Your task to perform on an android device: turn off notifications settings in the gmail app Image 0: 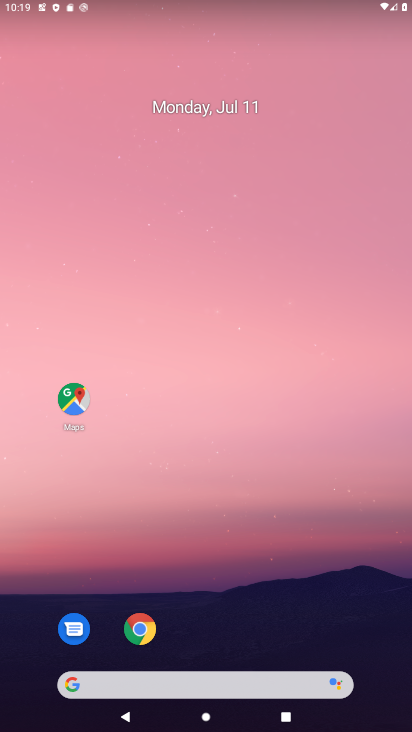
Step 0: drag from (200, 648) to (204, 289)
Your task to perform on an android device: turn off notifications settings in the gmail app Image 1: 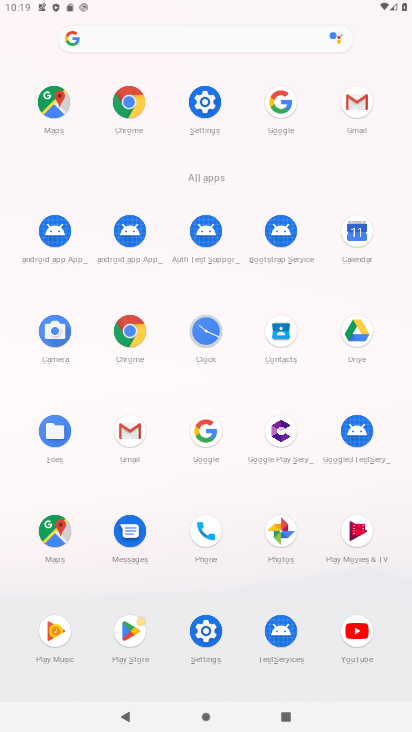
Step 1: click (355, 105)
Your task to perform on an android device: turn off notifications settings in the gmail app Image 2: 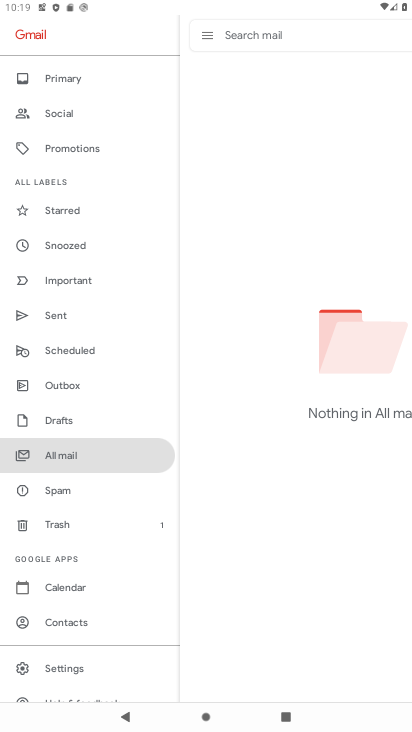
Step 2: click (89, 663)
Your task to perform on an android device: turn off notifications settings in the gmail app Image 3: 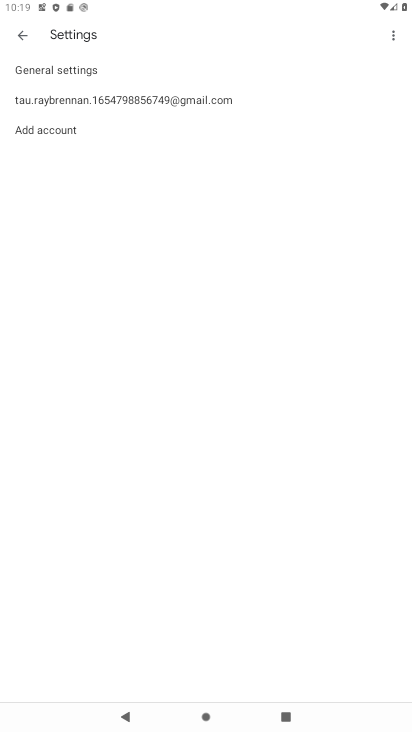
Step 3: click (123, 106)
Your task to perform on an android device: turn off notifications settings in the gmail app Image 4: 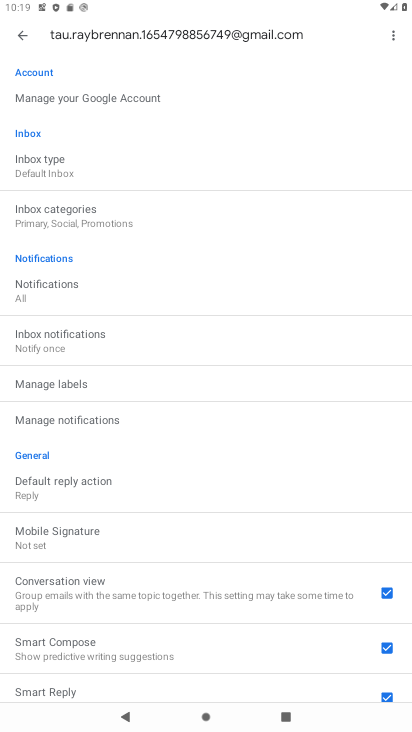
Step 4: drag from (156, 582) to (156, 346)
Your task to perform on an android device: turn off notifications settings in the gmail app Image 5: 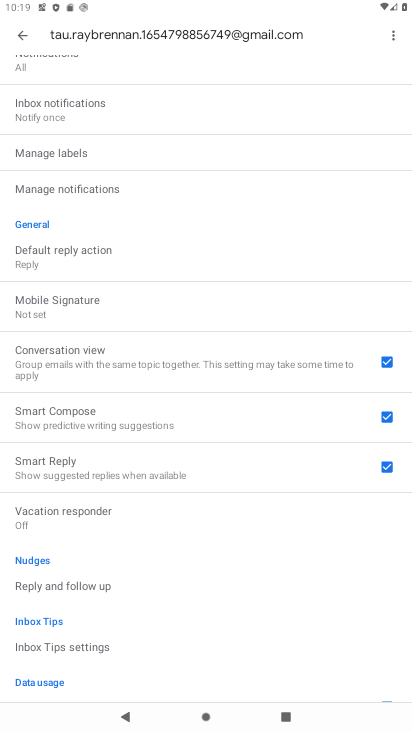
Step 5: click (109, 196)
Your task to perform on an android device: turn off notifications settings in the gmail app Image 6: 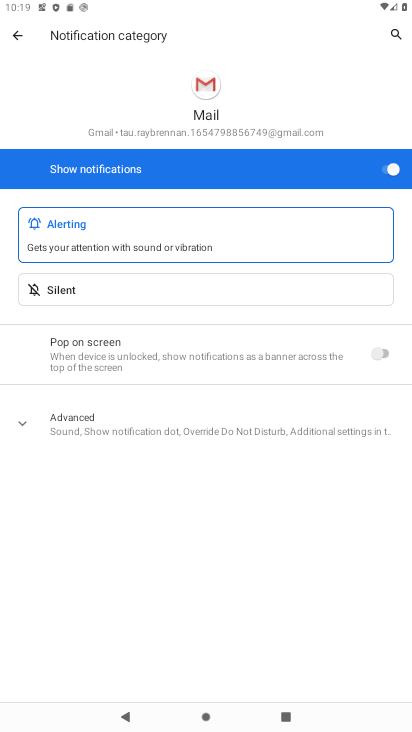
Step 6: click (378, 173)
Your task to perform on an android device: turn off notifications settings in the gmail app Image 7: 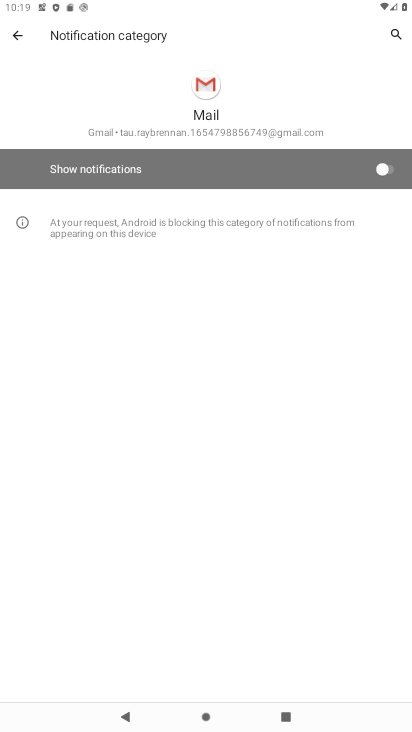
Step 7: task complete